Your task to perform on an android device: turn on location history Image 0: 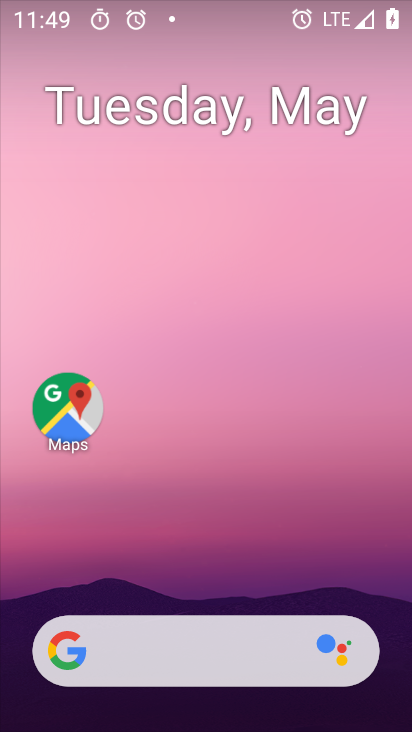
Step 0: drag from (198, 662) to (210, 126)
Your task to perform on an android device: turn on location history Image 1: 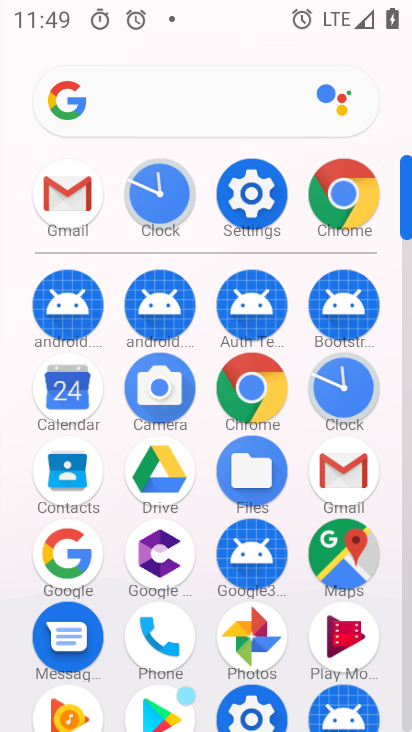
Step 1: click (271, 206)
Your task to perform on an android device: turn on location history Image 2: 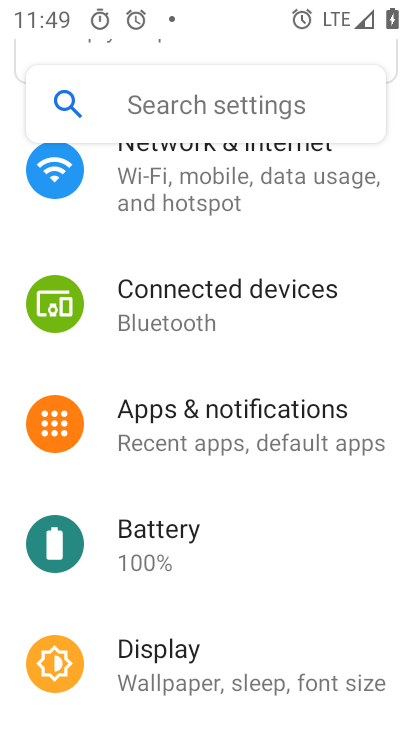
Step 2: drag from (191, 649) to (205, 97)
Your task to perform on an android device: turn on location history Image 3: 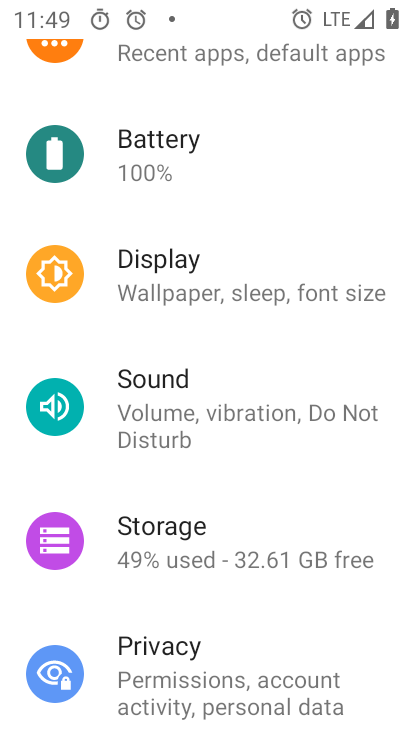
Step 3: drag from (163, 633) to (198, 114)
Your task to perform on an android device: turn on location history Image 4: 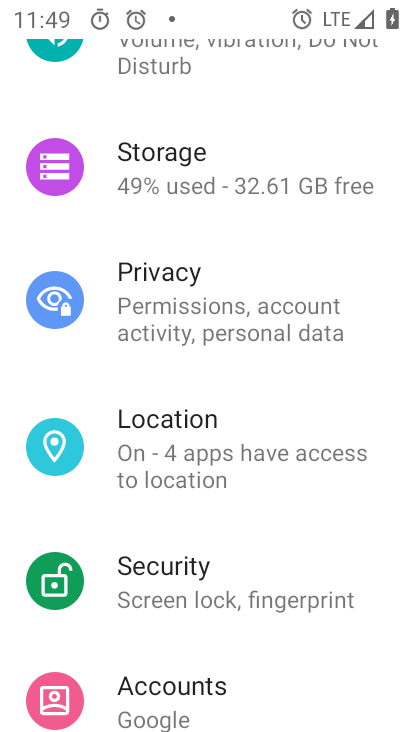
Step 4: click (164, 484)
Your task to perform on an android device: turn on location history Image 5: 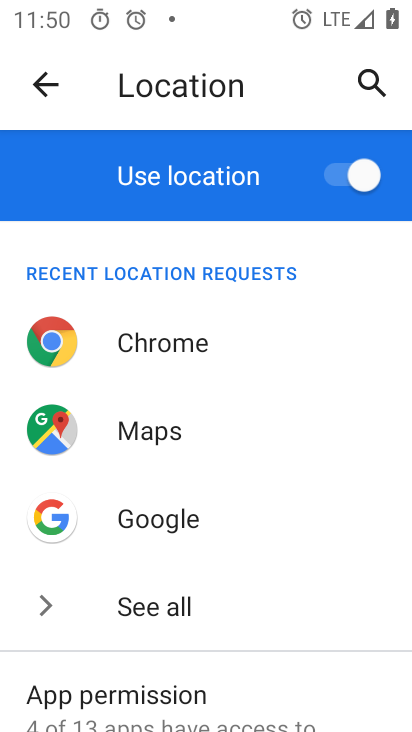
Step 5: drag from (201, 674) to (260, 96)
Your task to perform on an android device: turn on location history Image 6: 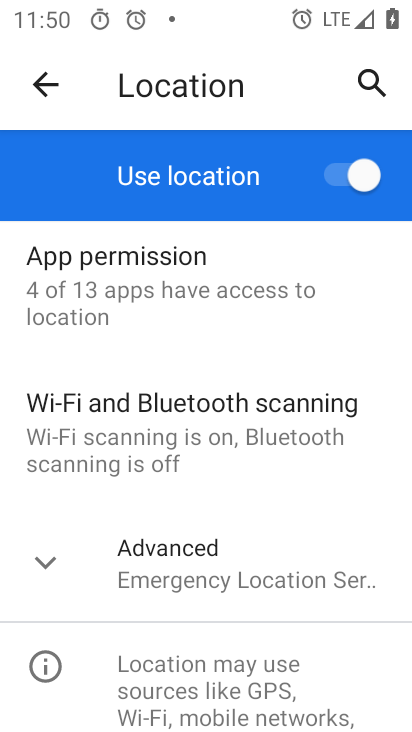
Step 6: click (230, 578)
Your task to perform on an android device: turn on location history Image 7: 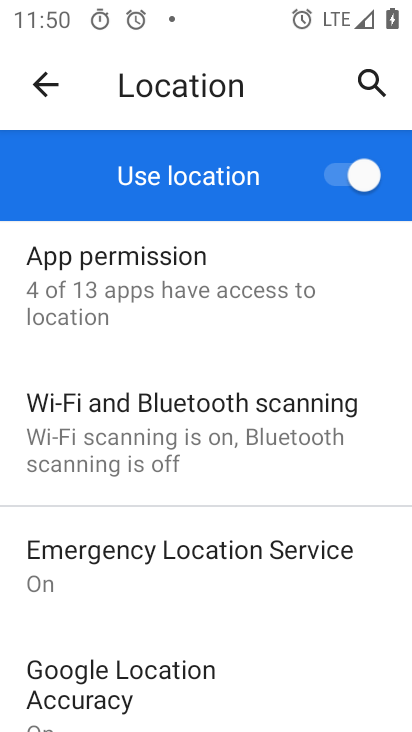
Step 7: task complete